Your task to perform on an android device: Open notification settings Image 0: 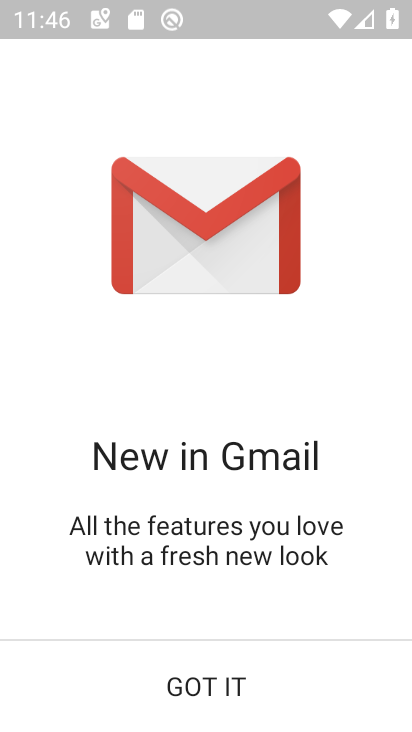
Step 0: press home button
Your task to perform on an android device: Open notification settings Image 1: 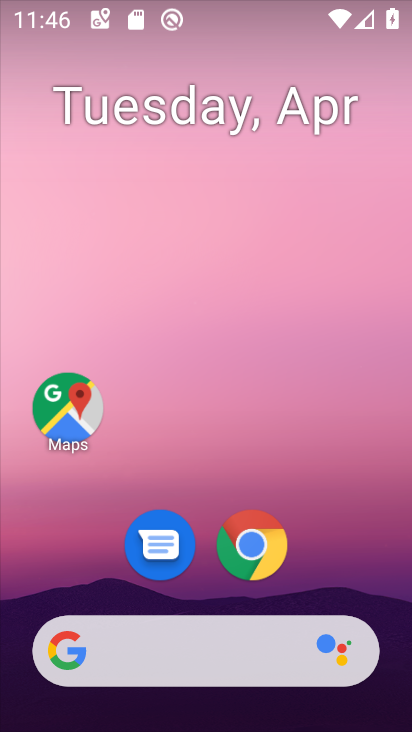
Step 1: drag from (385, 560) to (354, 0)
Your task to perform on an android device: Open notification settings Image 2: 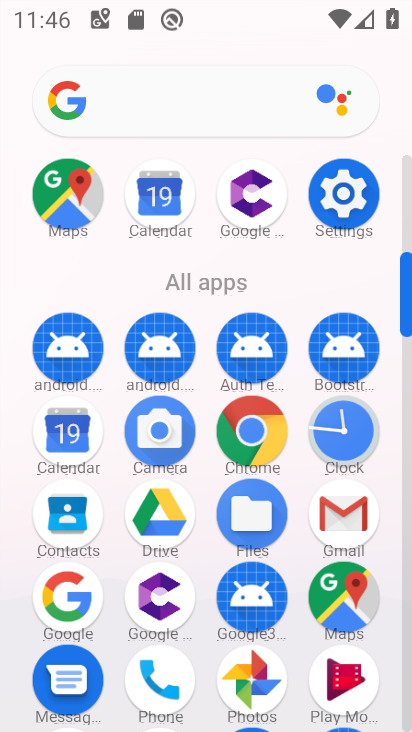
Step 2: click (315, 223)
Your task to perform on an android device: Open notification settings Image 3: 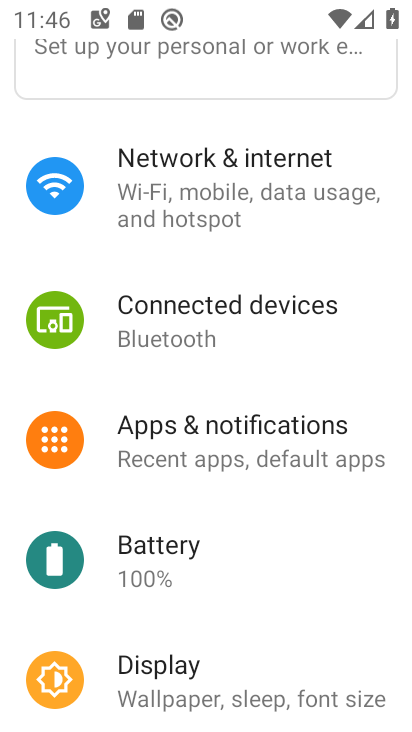
Step 3: click (262, 452)
Your task to perform on an android device: Open notification settings Image 4: 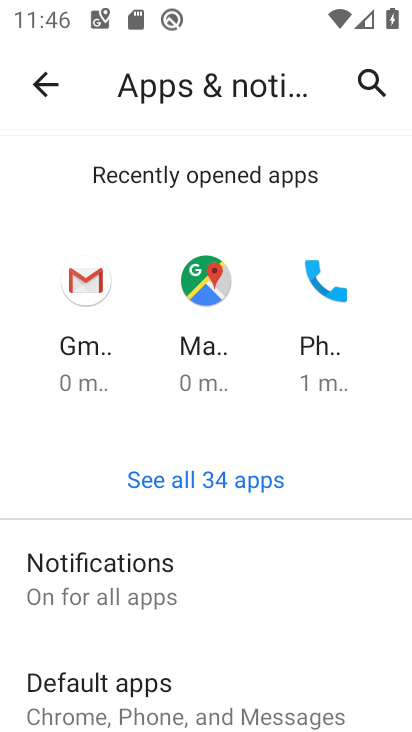
Step 4: click (126, 583)
Your task to perform on an android device: Open notification settings Image 5: 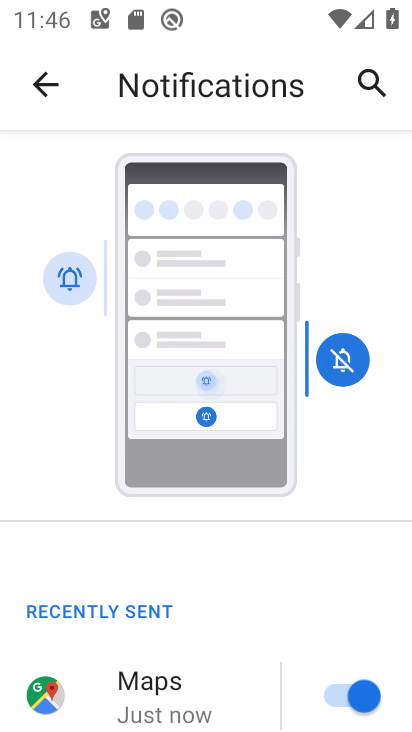
Step 5: drag from (114, 644) to (222, 154)
Your task to perform on an android device: Open notification settings Image 6: 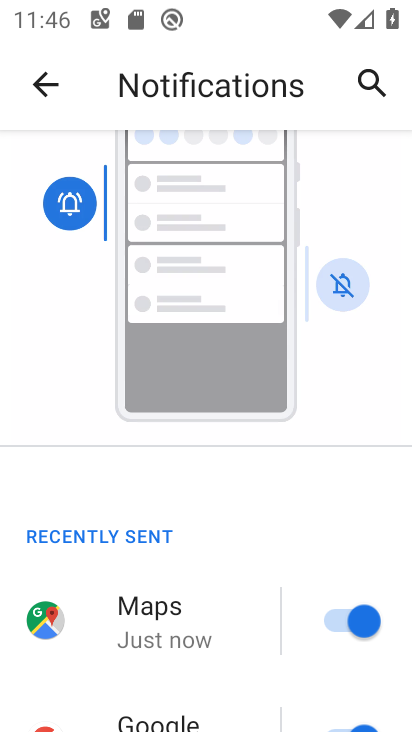
Step 6: drag from (222, 646) to (312, 192)
Your task to perform on an android device: Open notification settings Image 7: 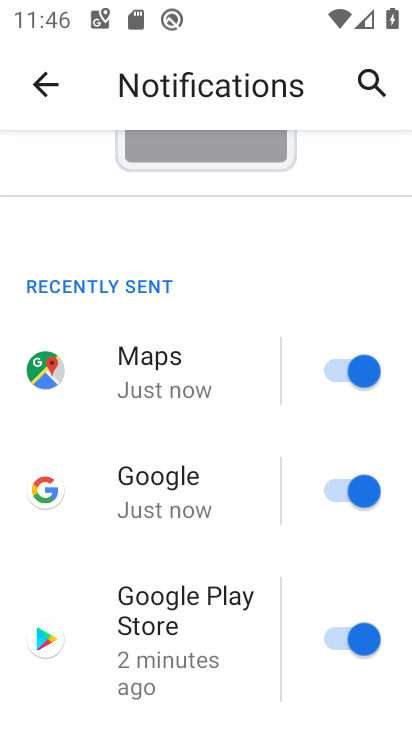
Step 7: drag from (196, 616) to (300, 212)
Your task to perform on an android device: Open notification settings Image 8: 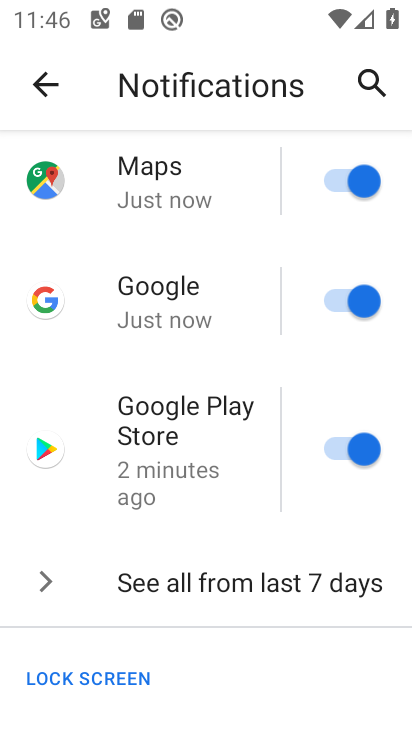
Step 8: drag from (160, 668) to (248, 239)
Your task to perform on an android device: Open notification settings Image 9: 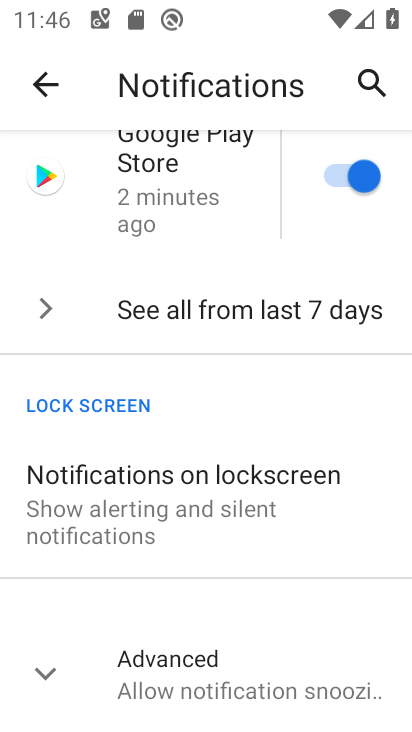
Step 9: click (190, 673)
Your task to perform on an android device: Open notification settings Image 10: 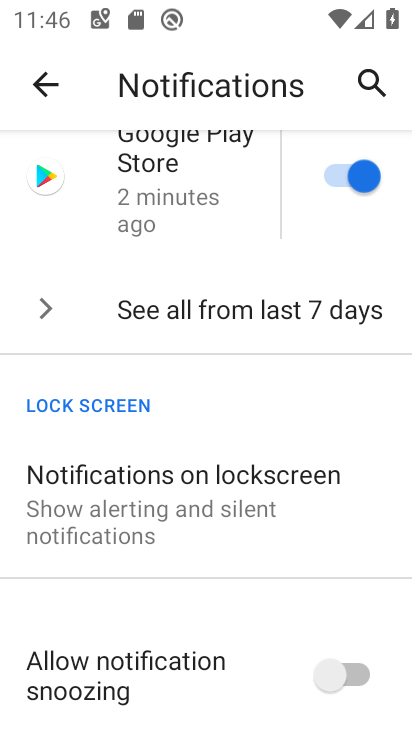
Step 10: task complete